Your task to perform on an android device: turn on airplane mode Image 0: 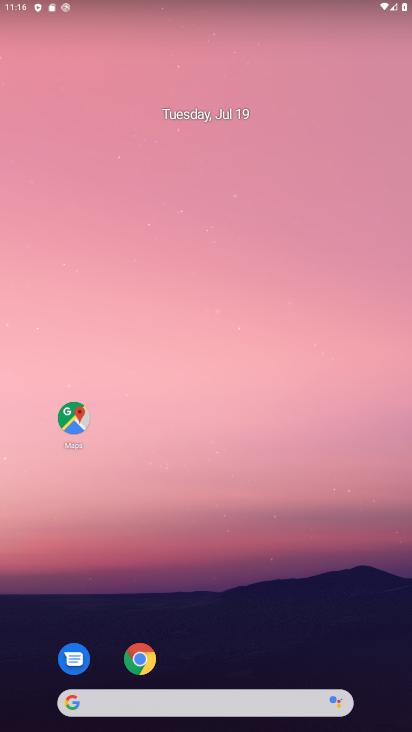
Step 0: drag from (378, 2) to (336, 312)
Your task to perform on an android device: turn on airplane mode Image 1: 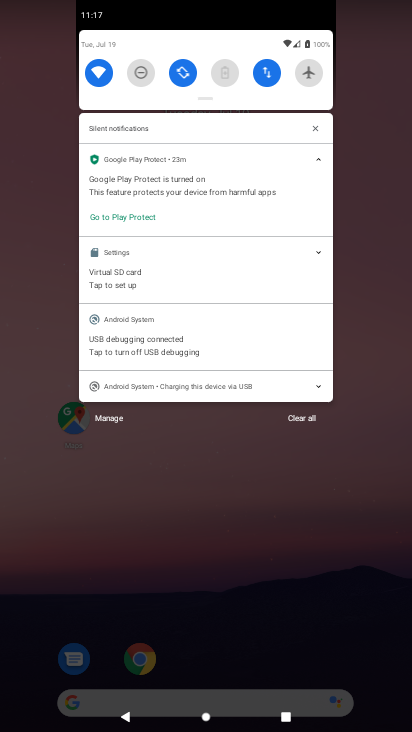
Step 1: click (310, 73)
Your task to perform on an android device: turn on airplane mode Image 2: 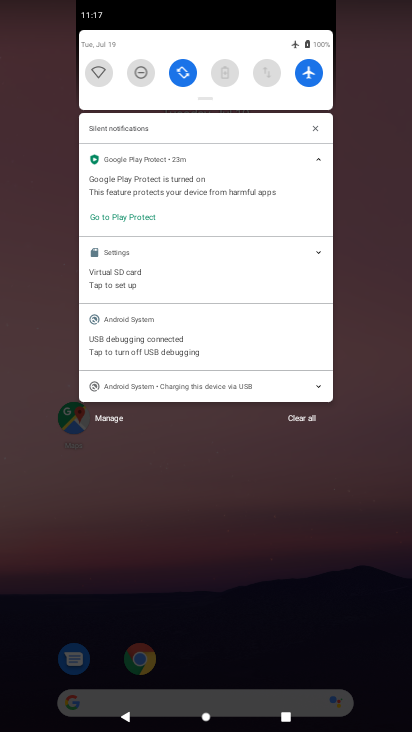
Step 2: task complete